Your task to perform on an android device: uninstall "Walmart Shopping & Grocery" Image 0: 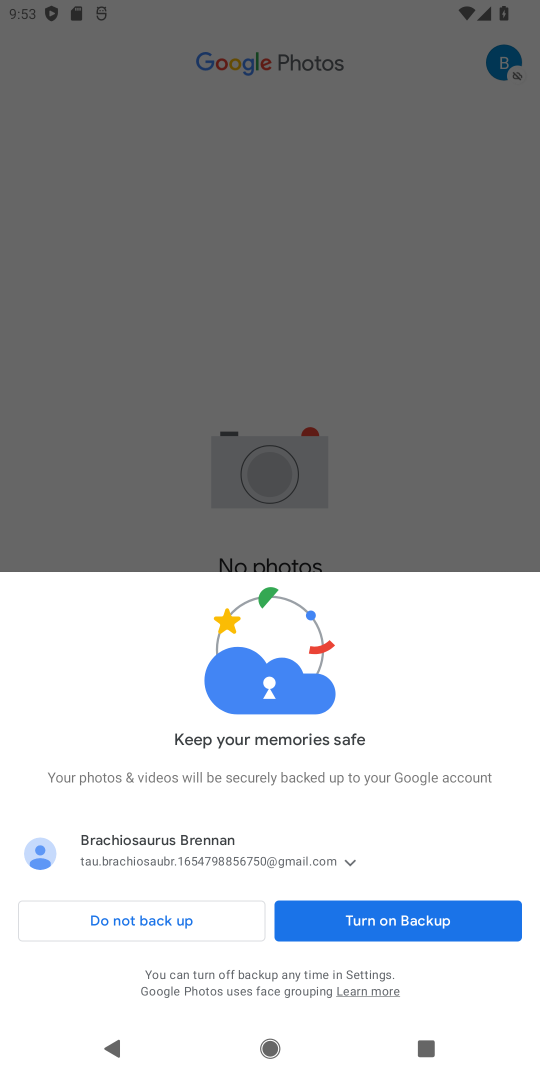
Step 0: press home button
Your task to perform on an android device: uninstall "Walmart Shopping & Grocery" Image 1: 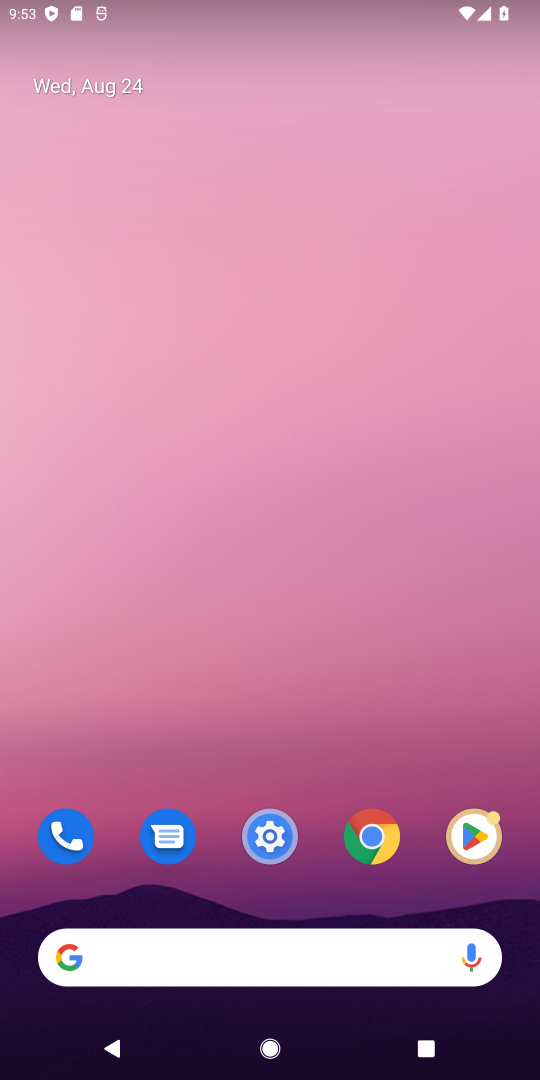
Step 1: click (467, 838)
Your task to perform on an android device: uninstall "Walmart Shopping & Grocery" Image 2: 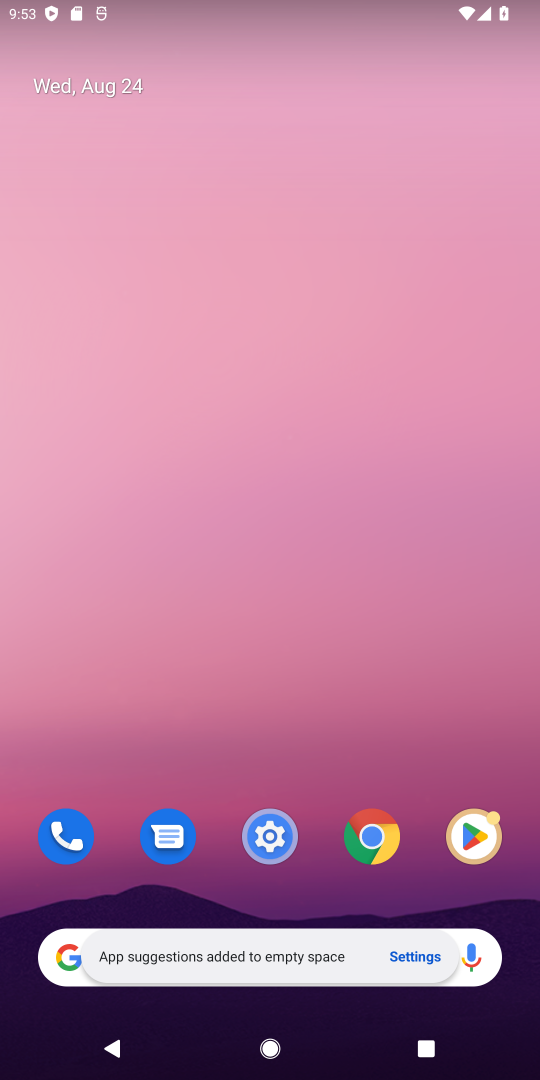
Step 2: click (473, 840)
Your task to perform on an android device: uninstall "Walmart Shopping & Grocery" Image 3: 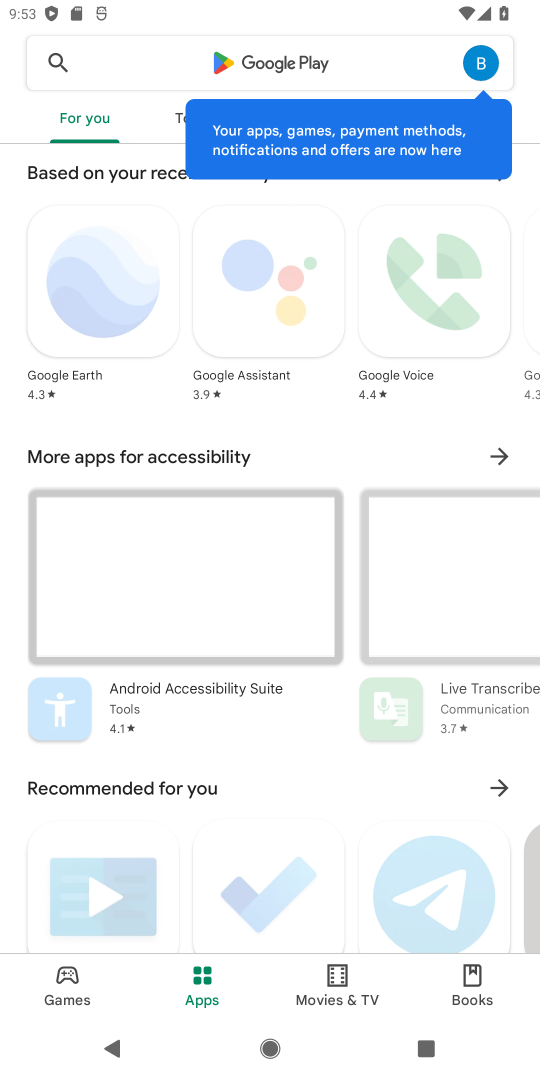
Step 3: click (242, 54)
Your task to perform on an android device: uninstall "Walmart Shopping & Grocery" Image 4: 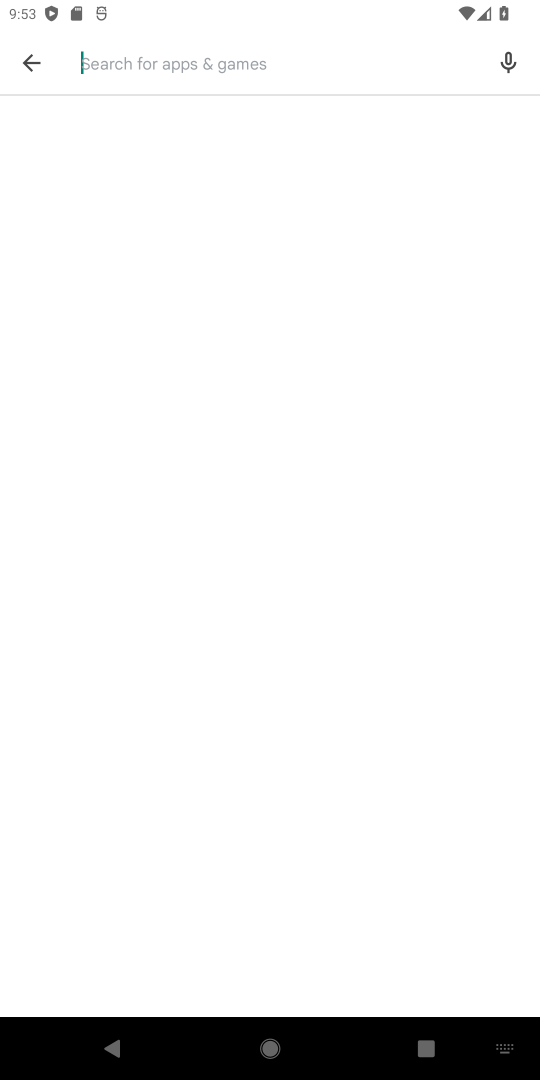
Step 4: type "Walmart Shopping & Grocer"
Your task to perform on an android device: uninstall "Walmart Shopping & Grocery" Image 5: 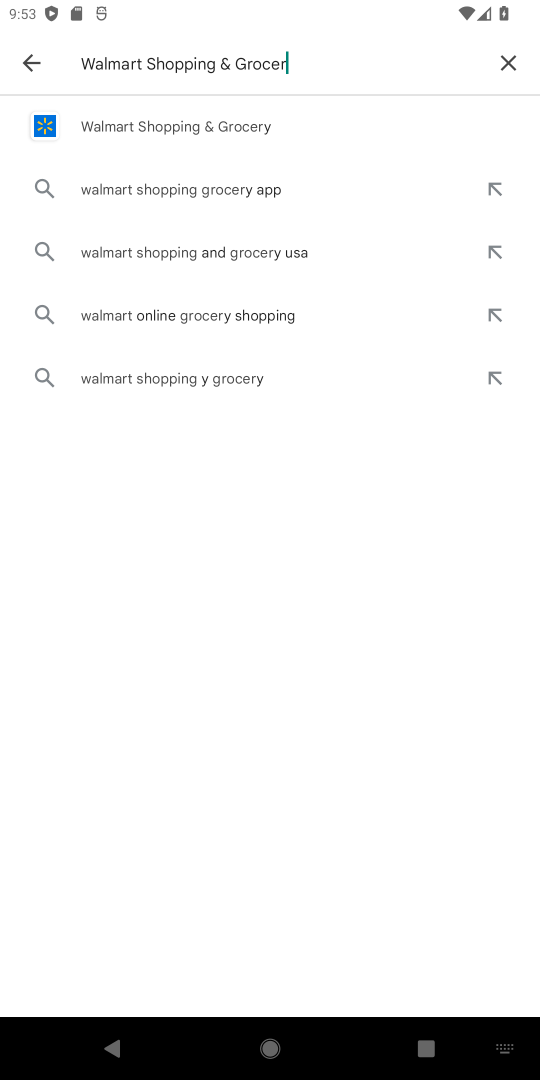
Step 5: click (177, 125)
Your task to perform on an android device: uninstall "Walmart Shopping & Grocery" Image 6: 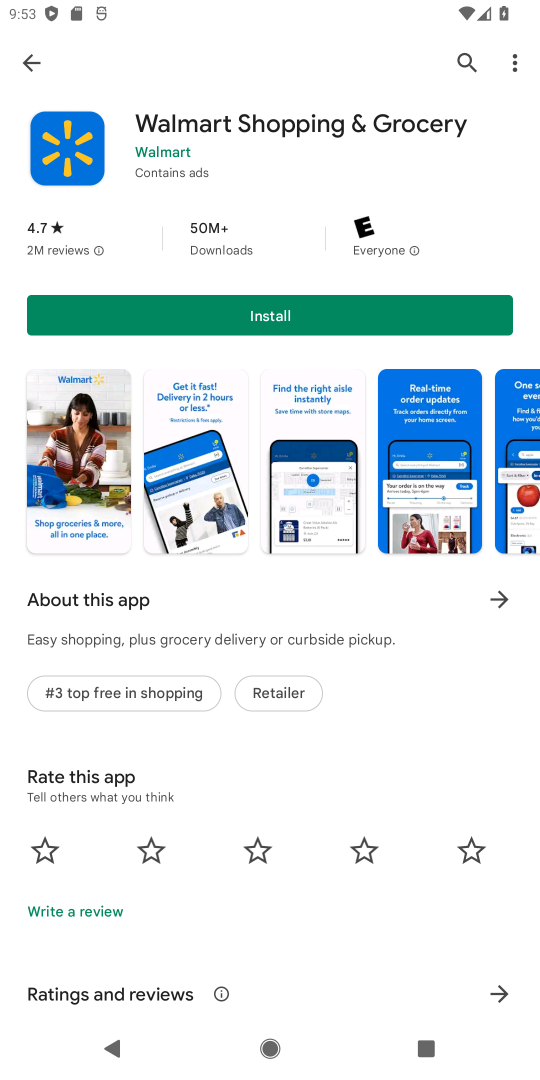
Step 6: task complete